Your task to perform on an android device: turn off location Image 0: 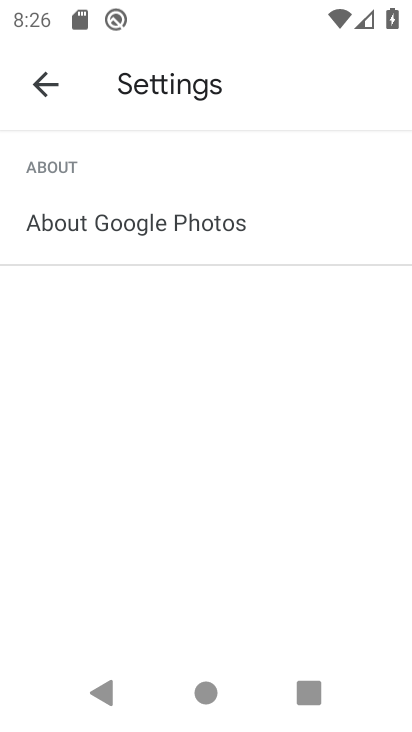
Step 0: press home button
Your task to perform on an android device: turn off location Image 1: 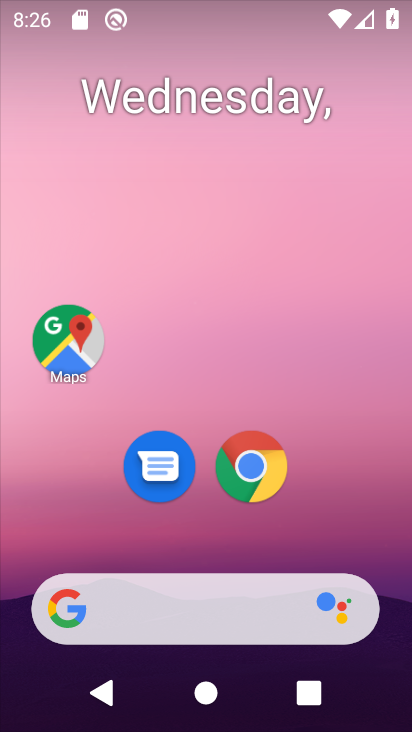
Step 1: drag from (162, 730) to (174, 112)
Your task to perform on an android device: turn off location Image 2: 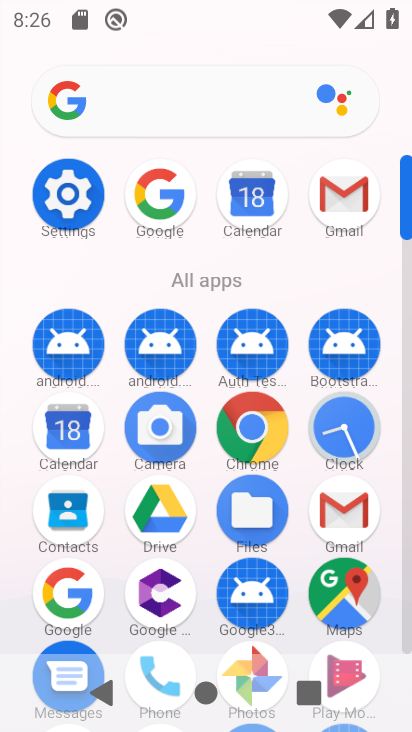
Step 2: click (66, 199)
Your task to perform on an android device: turn off location Image 3: 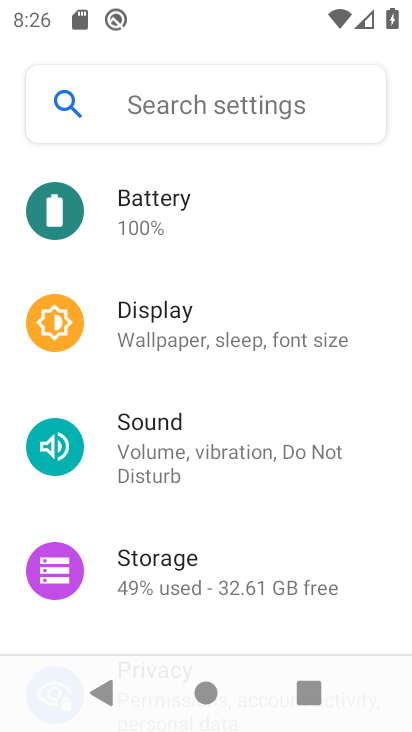
Step 3: drag from (149, 557) to (149, 157)
Your task to perform on an android device: turn off location Image 4: 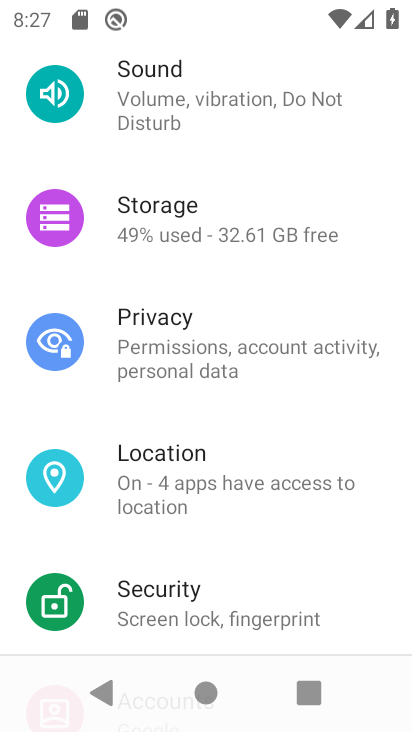
Step 4: click (163, 463)
Your task to perform on an android device: turn off location Image 5: 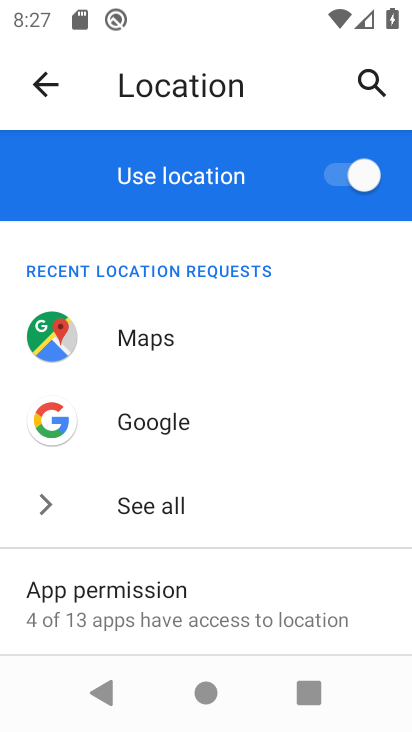
Step 5: click (337, 171)
Your task to perform on an android device: turn off location Image 6: 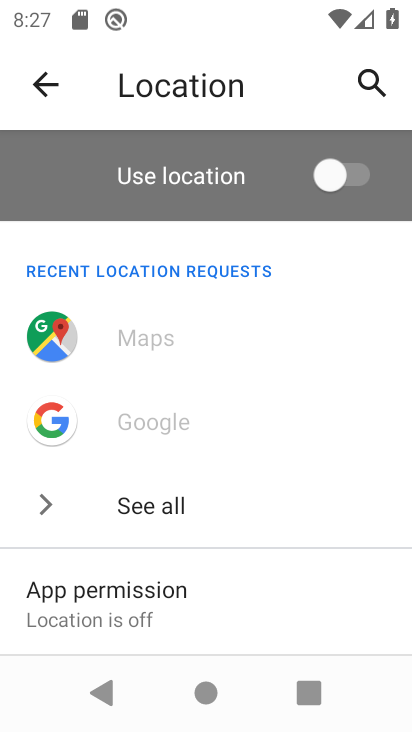
Step 6: task complete